Your task to perform on an android device: change the clock display to show seconds Image 0: 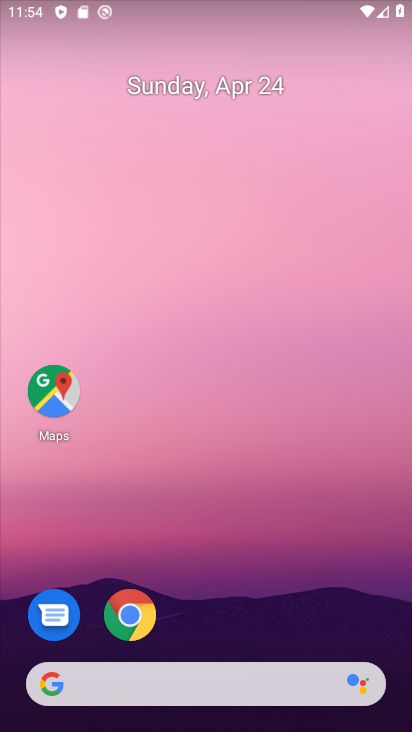
Step 0: drag from (342, 616) to (385, 151)
Your task to perform on an android device: change the clock display to show seconds Image 1: 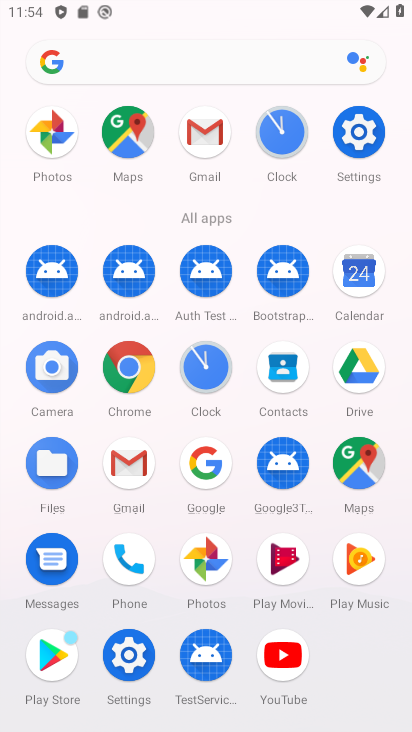
Step 1: click (208, 372)
Your task to perform on an android device: change the clock display to show seconds Image 2: 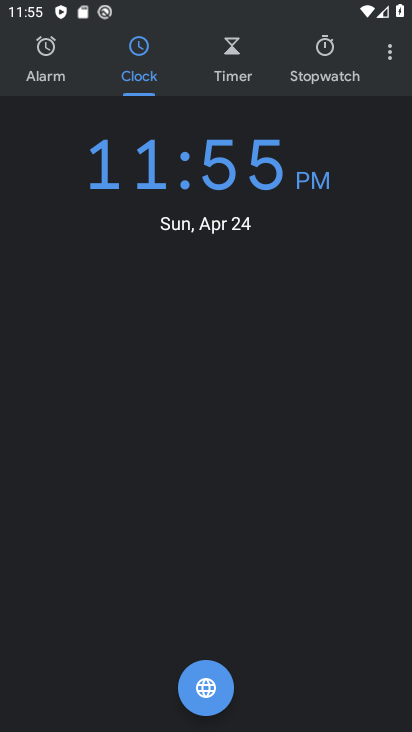
Step 2: click (390, 53)
Your task to perform on an android device: change the clock display to show seconds Image 3: 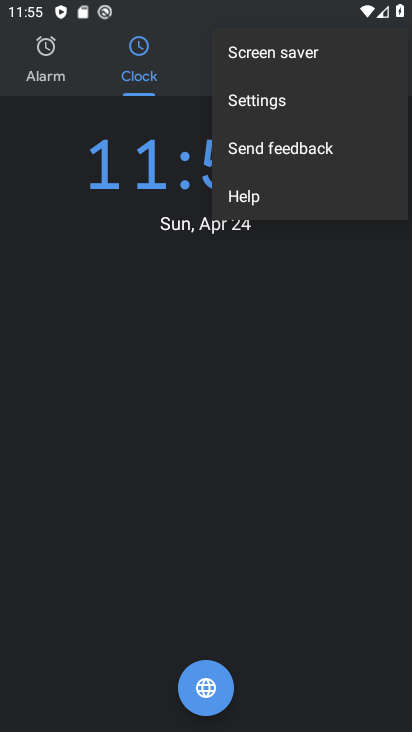
Step 3: click (296, 105)
Your task to perform on an android device: change the clock display to show seconds Image 4: 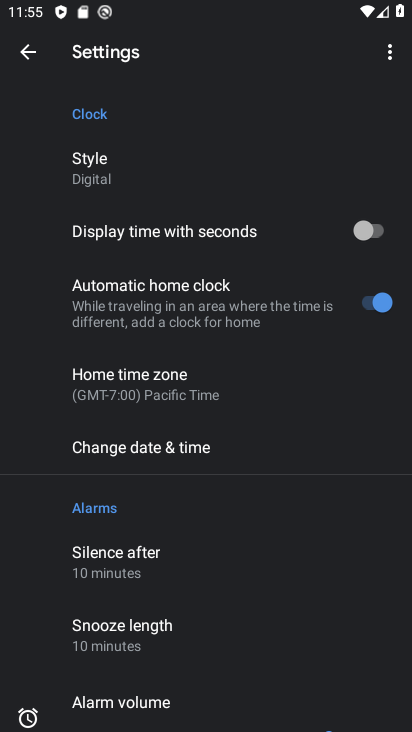
Step 4: click (367, 227)
Your task to perform on an android device: change the clock display to show seconds Image 5: 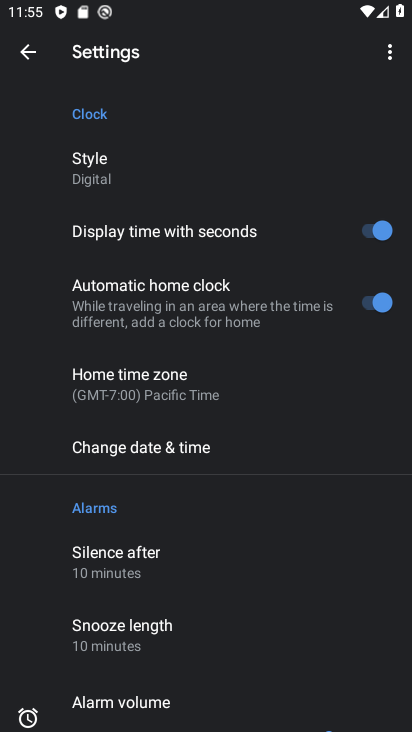
Step 5: task complete